Your task to perform on an android device: Open Google Chrome and click the shortcut for Amazon.com Image 0: 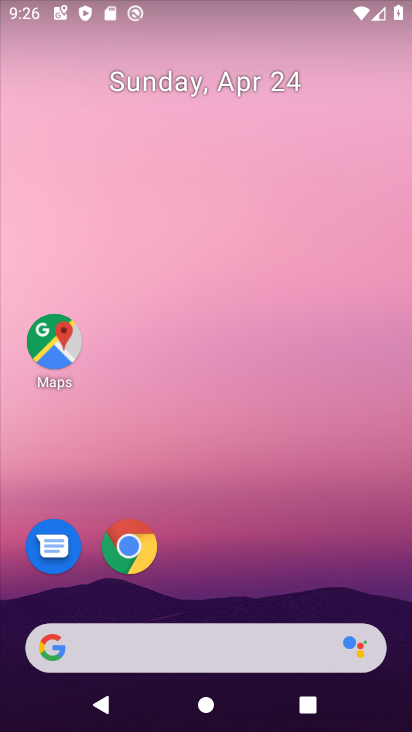
Step 0: click (110, 540)
Your task to perform on an android device: Open Google Chrome and click the shortcut for Amazon.com Image 1: 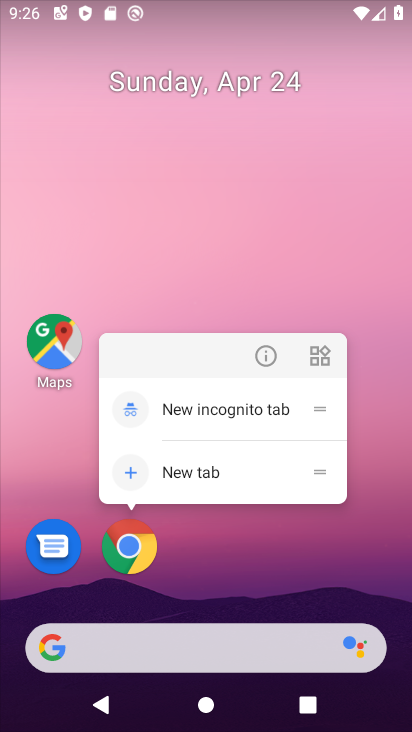
Step 1: click (114, 543)
Your task to perform on an android device: Open Google Chrome and click the shortcut for Amazon.com Image 2: 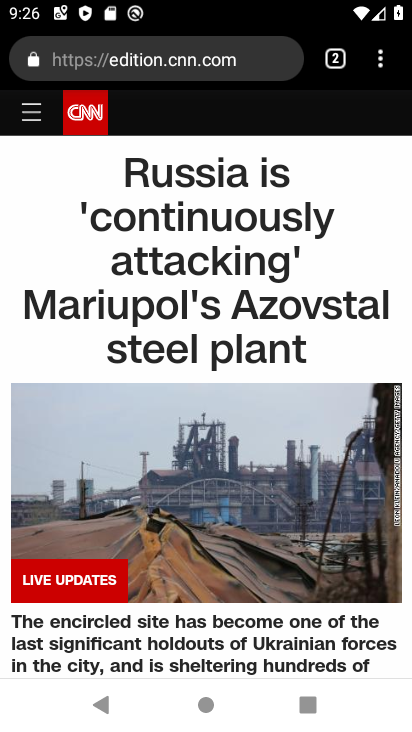
Step 2: click (343, 59)
Your task to perform on an android device: Open Google Chrome and click the shortcut for Amazon.com Image 3: 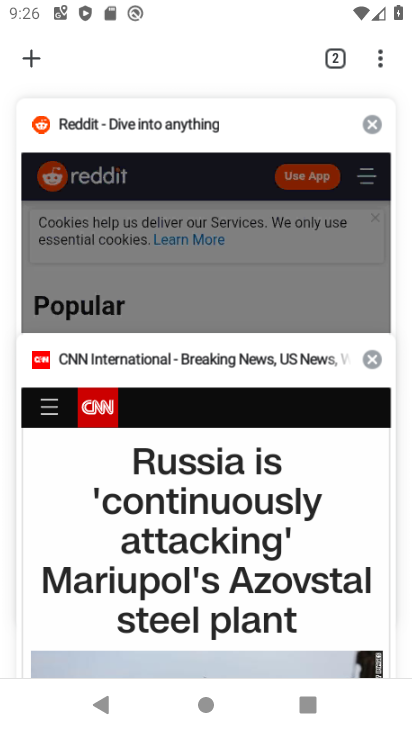
Step 3: click (25, 68)
Your task to perform on an android device: Open Google Chrome and click the shortcut for Amazon.com Image 4: 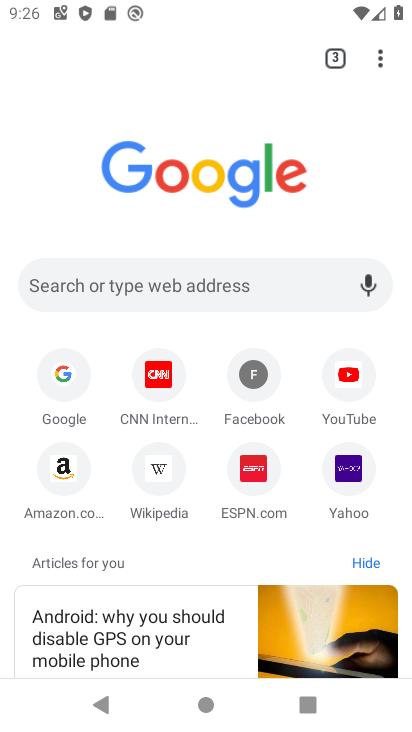
Step 4: click (78, 472)
Your task to perform on an android device: Open Google Chrome and click the shortcut for Amazon.com Image 5: 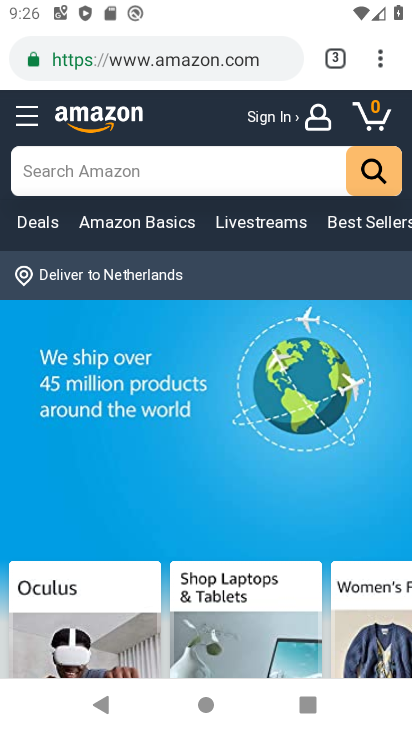
Step 5: task complete